Your task to perform on an android device: Look up the best rated gaming chairs on Target. Image 0: 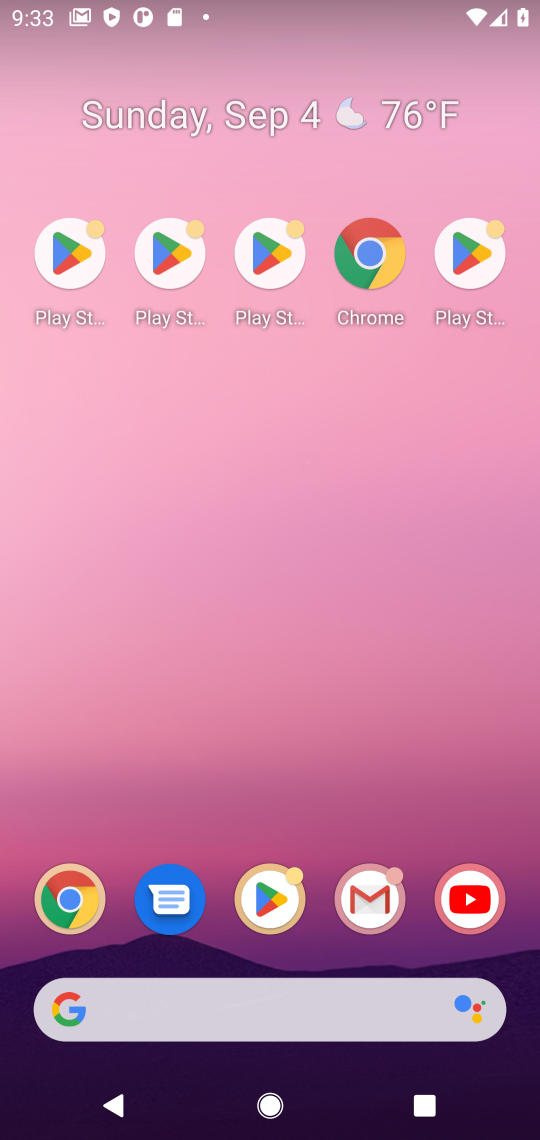
Step 0: press home button
Your task to perform on an android device: Look up the best rated gaming chairs on Target. Image 1: 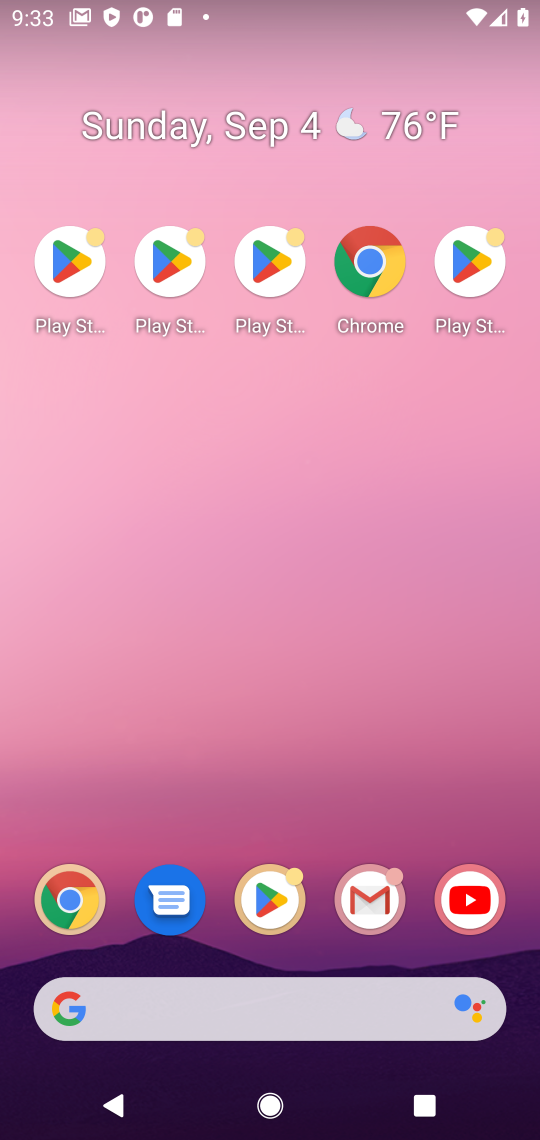
Step 1: drag from (237, 957) to (164, 108)
Your task to perform on an android device: Look up the best rated gaming chairs on Target. Image 2: 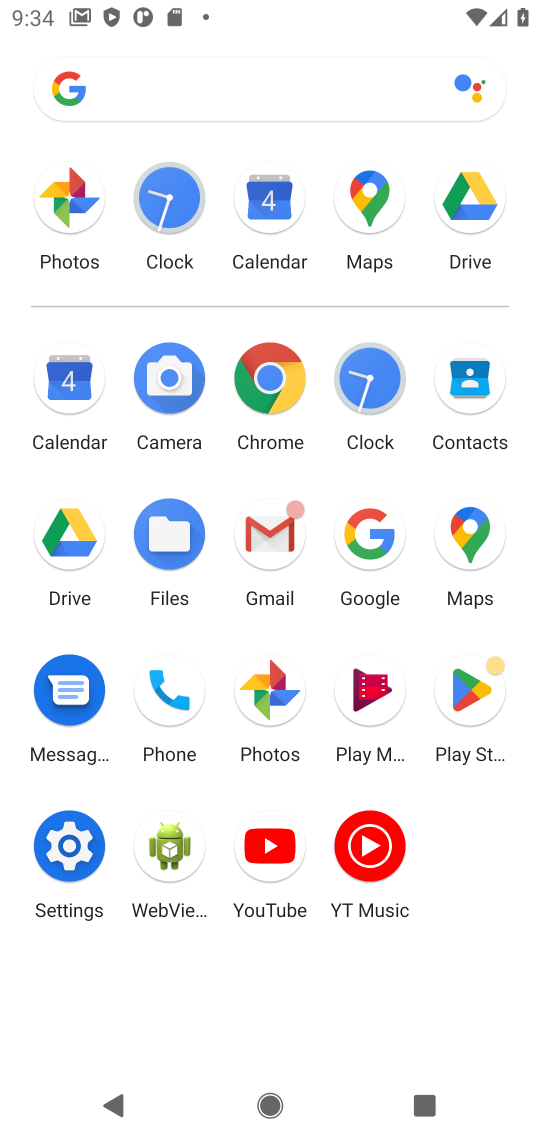
Step 2: click (255, 404)
Your task to perform on an android device: Look up the best rated gaming chairs on Target. Image 3: 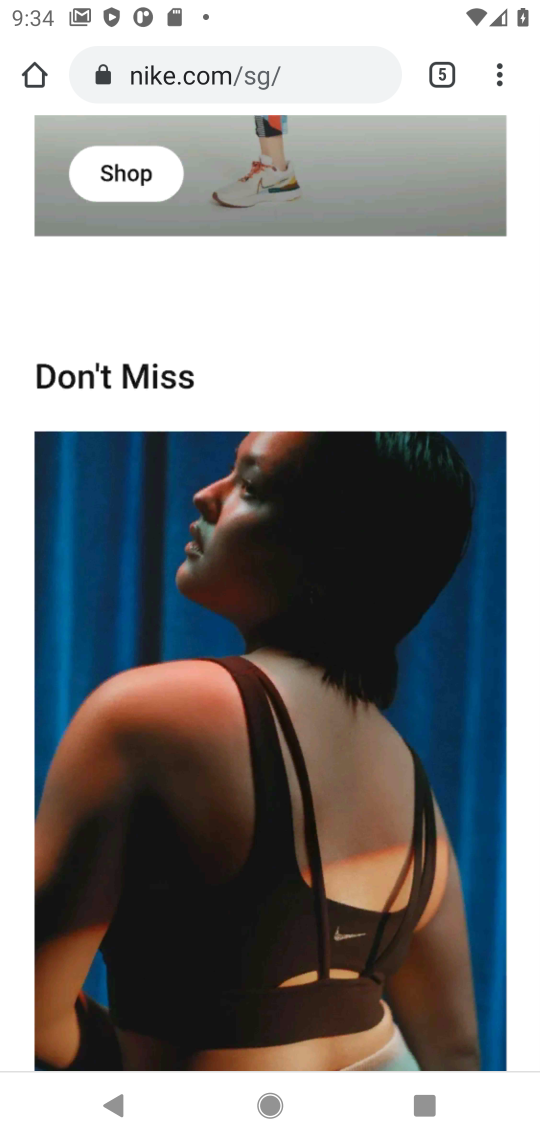
Step 3: drag from (350, 263) to (320, 856)
Your task to perform on an android device: Look up the best rated gaming chairs on Target. Image 4: 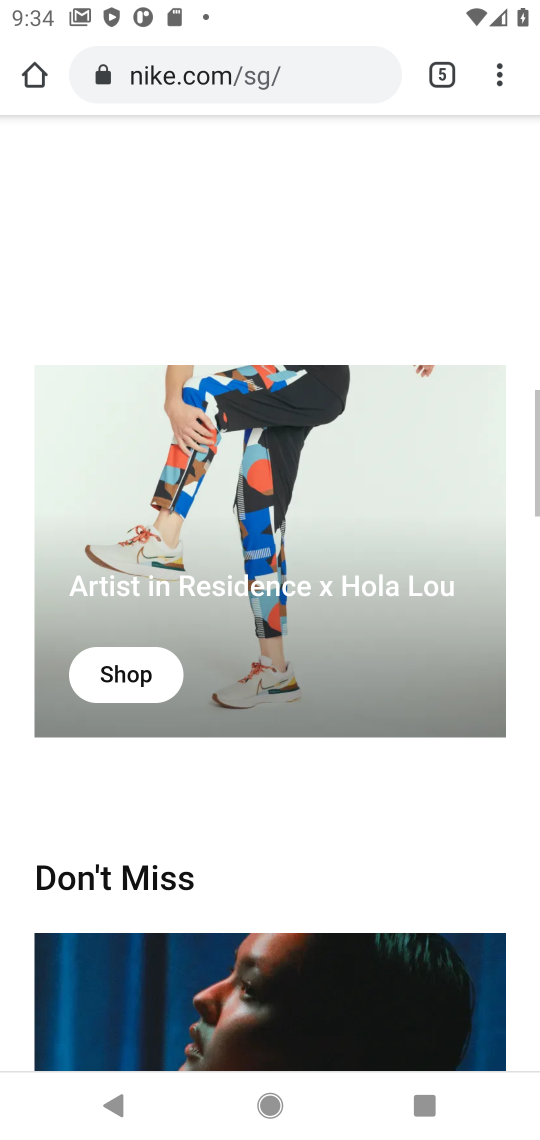
Step 4: click (306, 64)
Your task to perform on an android device: Look up the best rated gaming chairs on Target. Image 5: 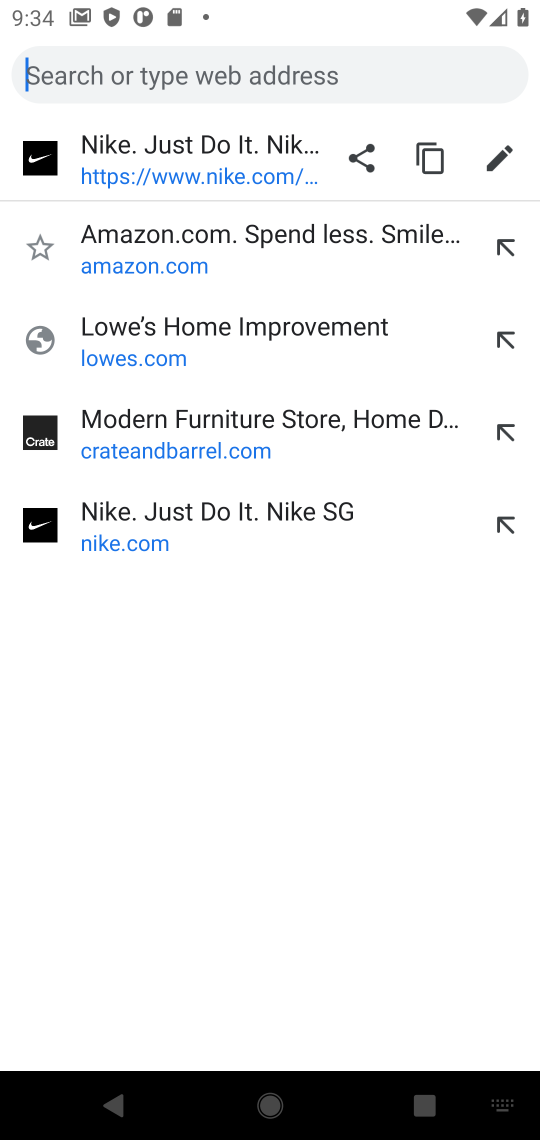
Step 5: type "Target"
Your task to perform on an android device: Look up the best rated gaming chairs on Target. Image 6: 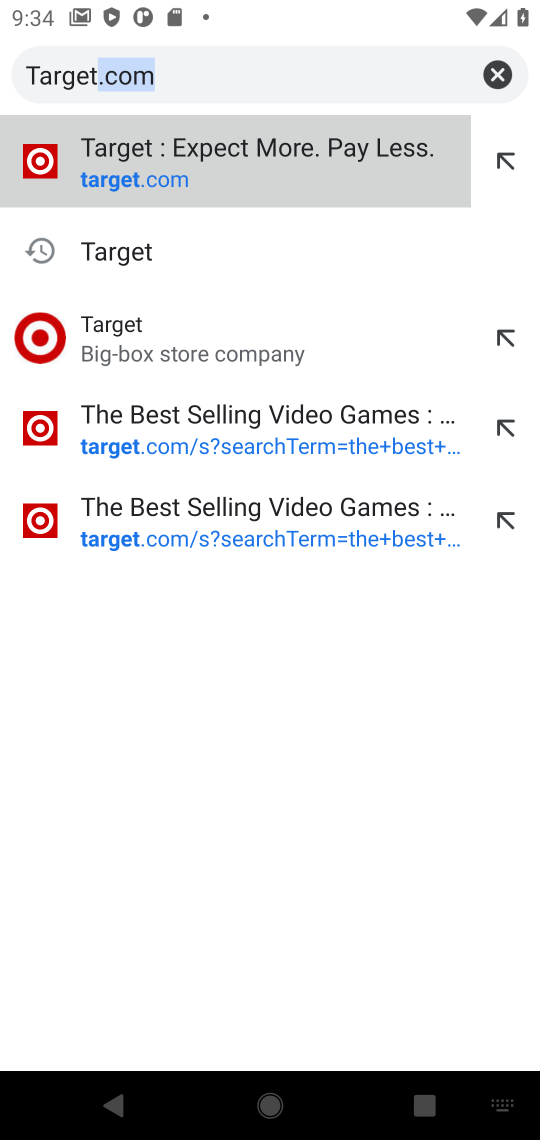
Step 6: type ""
Your task to perform on an android device: Look up the best rated gaming chairs on Target. Image 7: 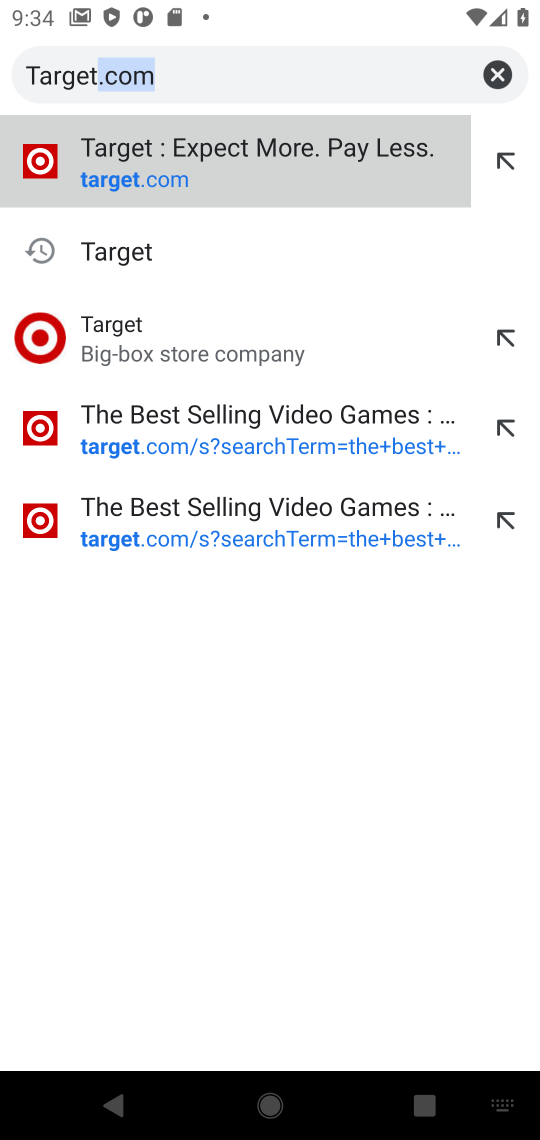
Step 7: click (112, 175)
Your task to perform on an android device: Look up the best rated gaming chairs on Target. Image 8: 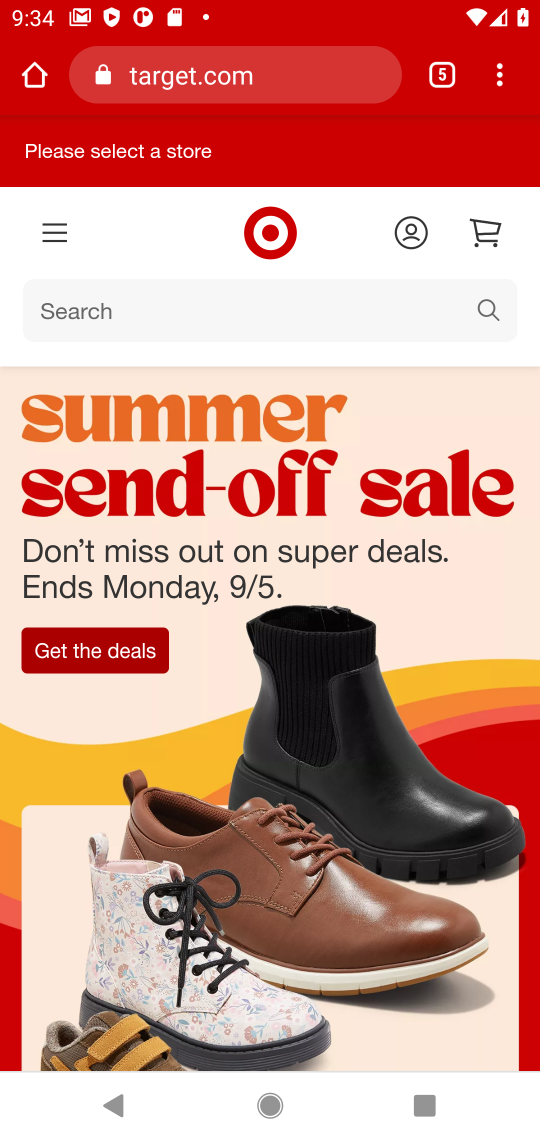
Step 8: click (341, 297)
Your task to perform on an android device: Look up the best rated gaming chairs on Target. Image 9: 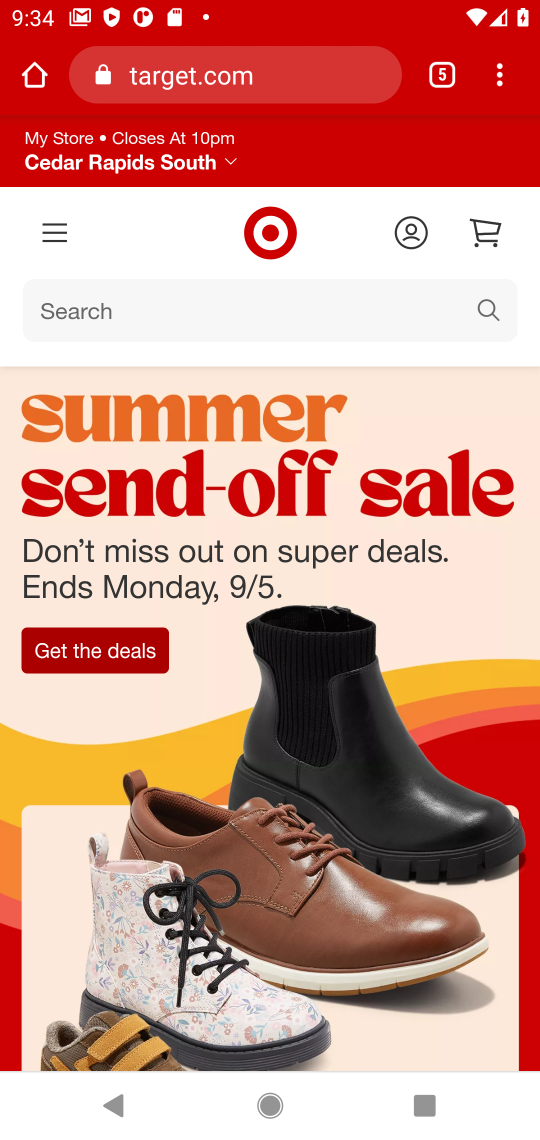
Step 9: click (129, 305)
Your task to perform on an android device: Look up the best rated gaming chairs on Target. Image 10: 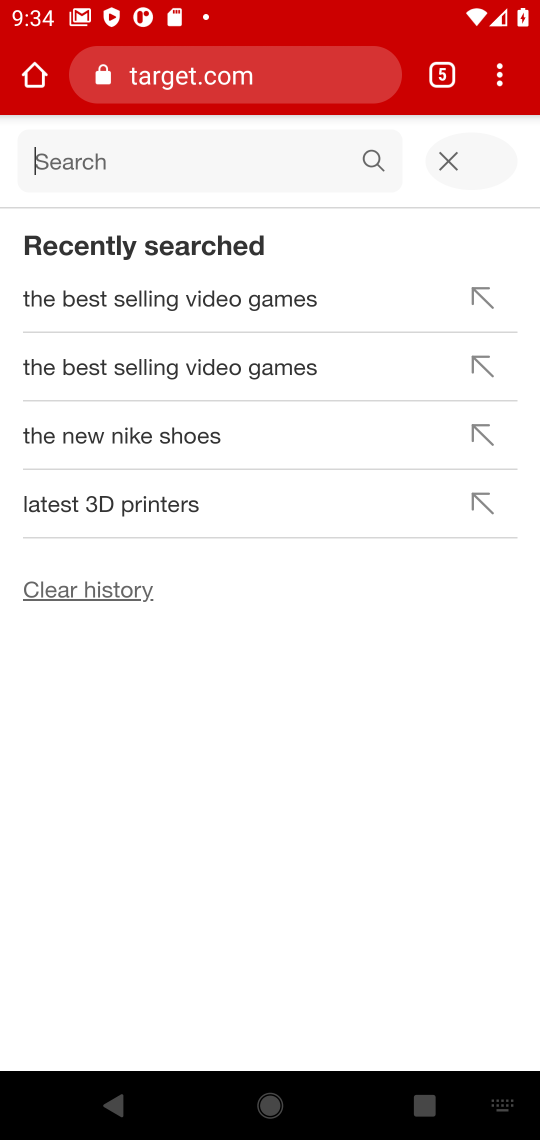
Step 10: type "the best rated gaming chair"
Your task to perform on an android device: Look up the best rated gaming chairs on Target. Image 11: 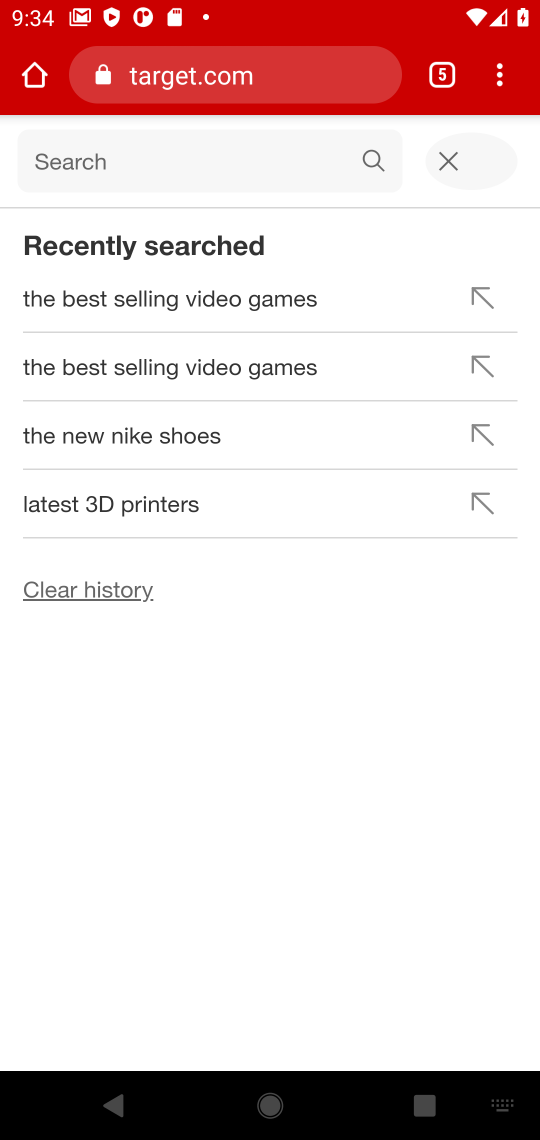
Step 11: type ""
Your task to perform on an android device: Look up the best rated gaming chairs on Target. Image 12: 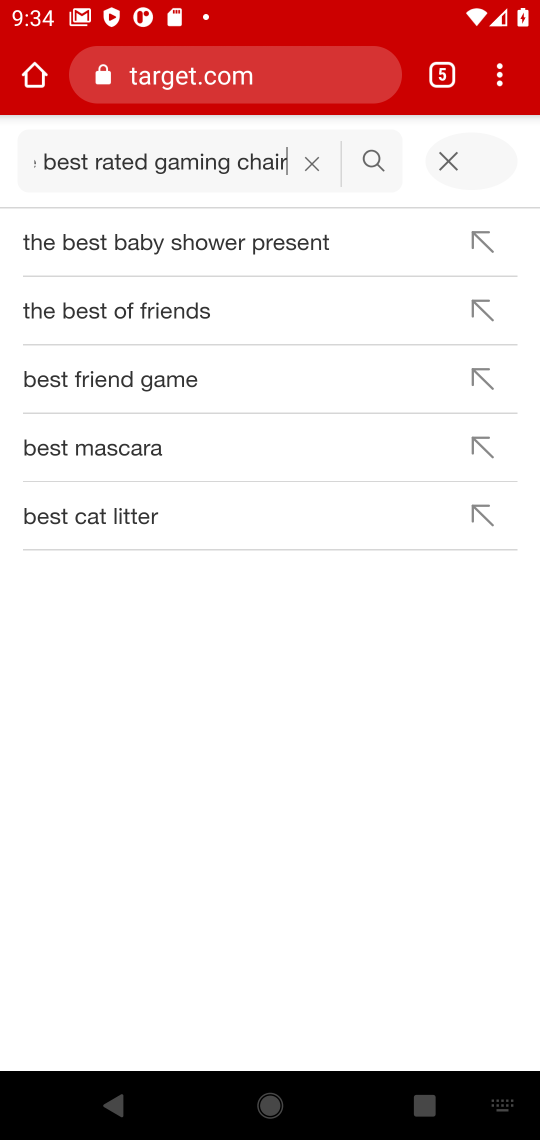
Step 12: click (144, 242)
Your task to perform on an android device: Look up the best rated gaming chairs on Target. Image 13: 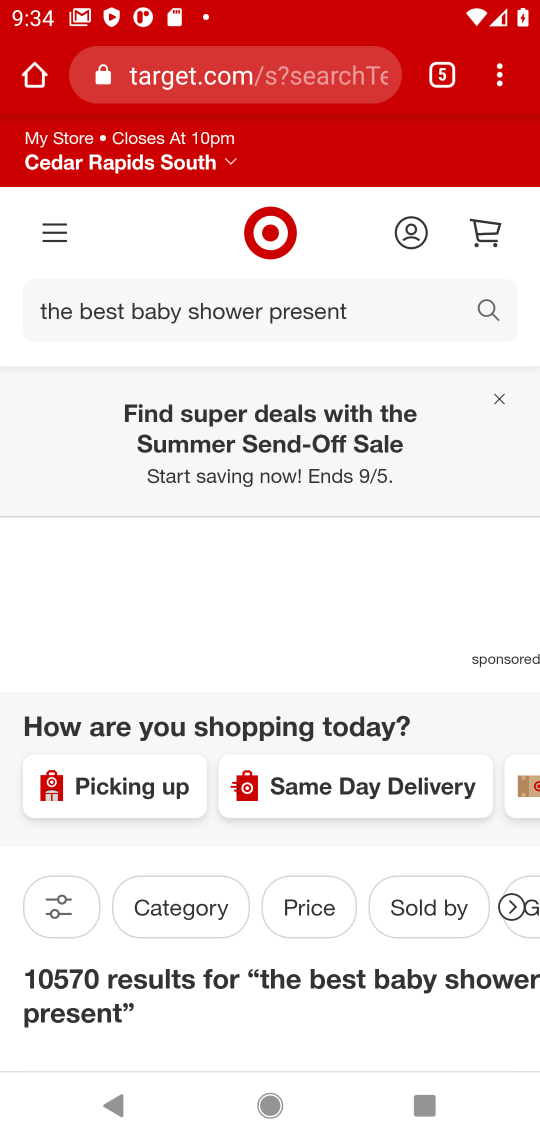
Step 13: drag from (285, 742) to (242, 223)
Your task to perform on an android device: Look up the best rated gaming chairs on Target. Image 14: 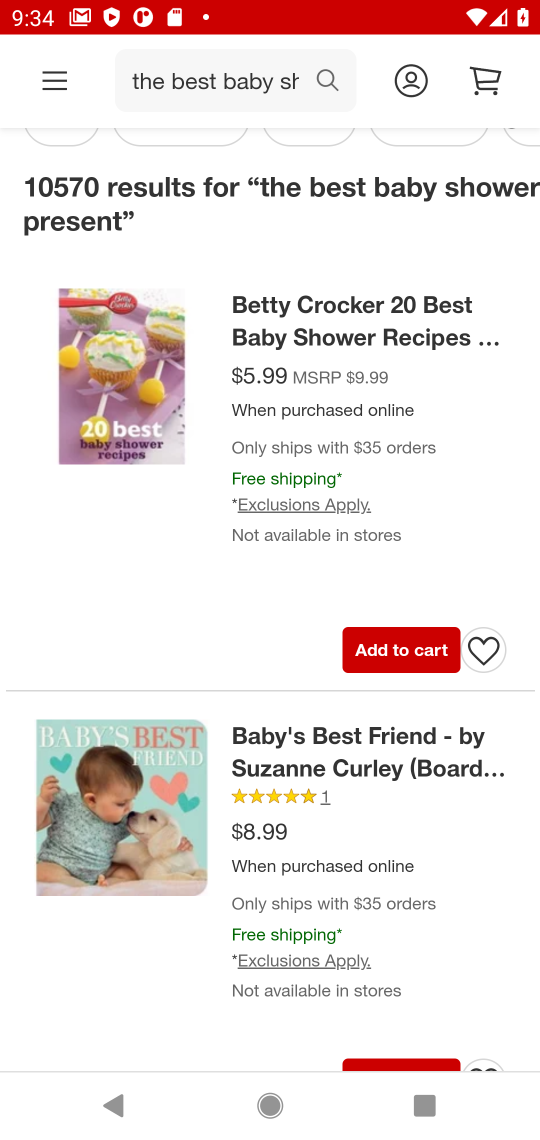
Step 14: press home button
Your task to perform on an android device: Look up the best rated gaming chairs on Target. Image 15: 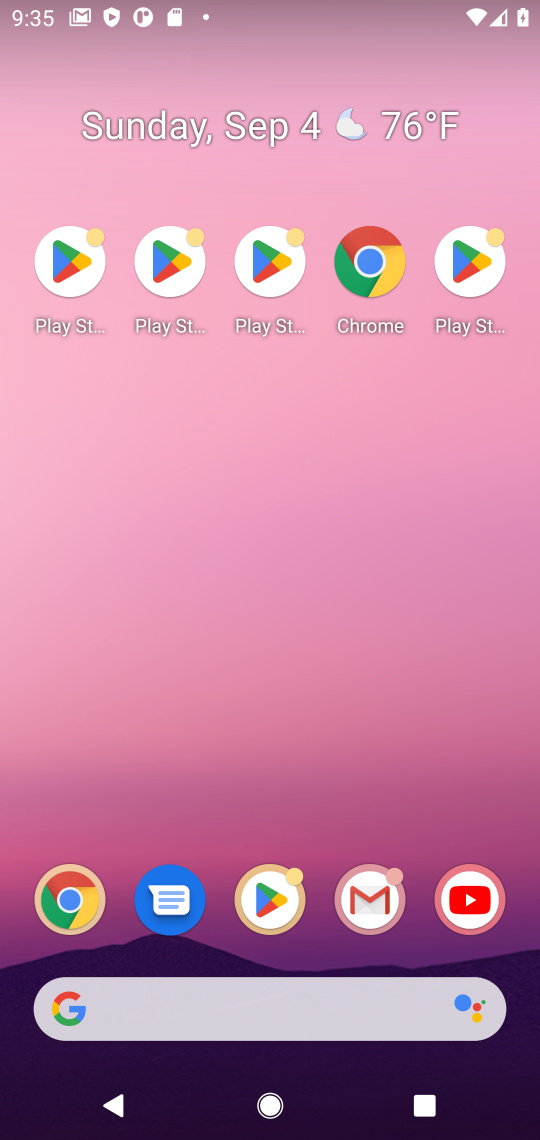
Step 15: drag from (347, 974) to (460, 163)
Your task to perform on an android device: Look up the best rated gaming chairs on Target. Image 16: 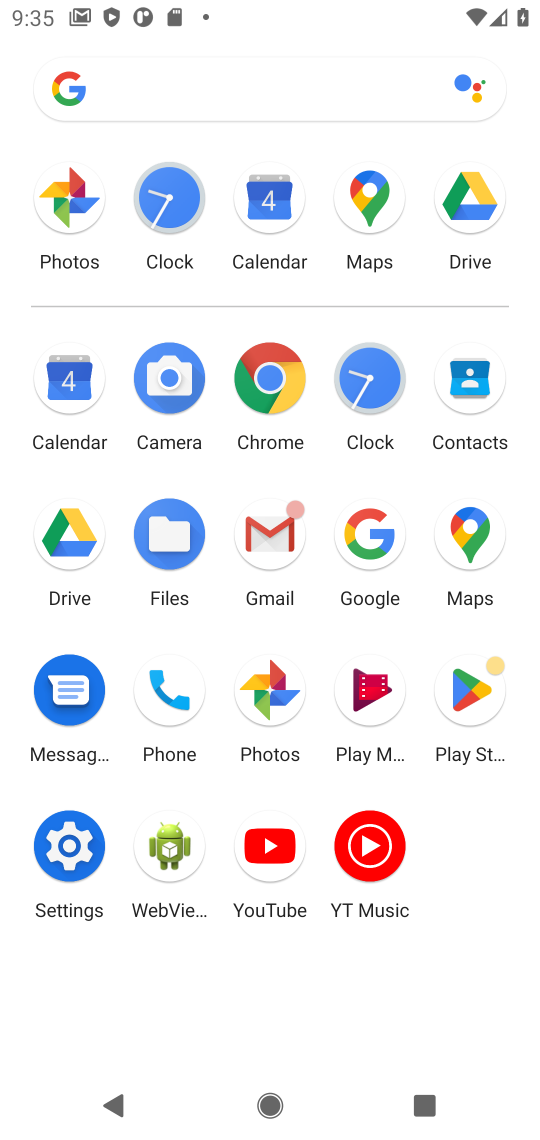
Step 16: click (241, 373)
Your task to perform on an android device: Look up the best rated gaming chairs on Target. Image 17: 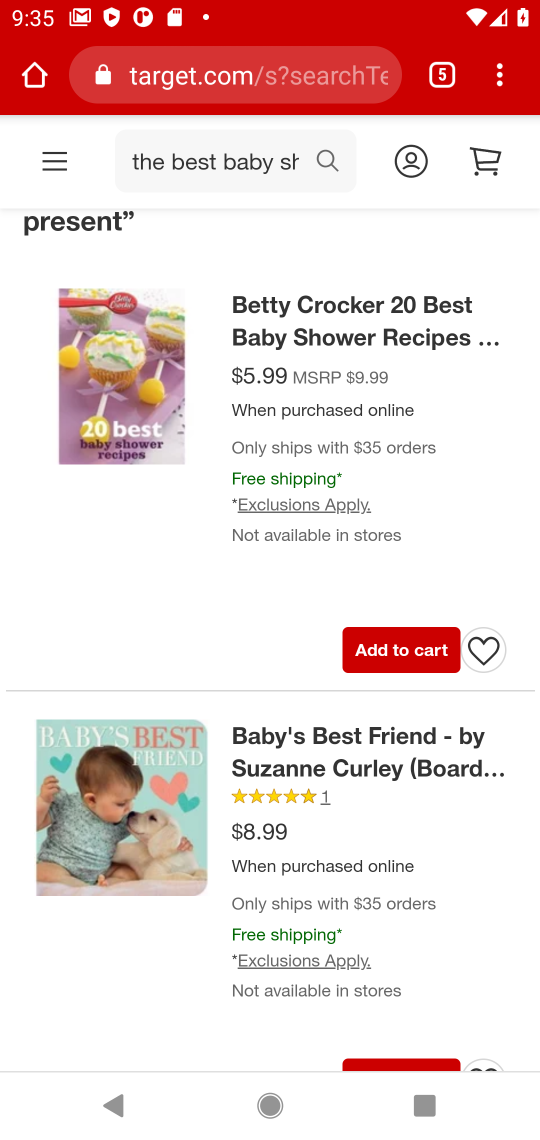
Step 17: click (27, 58)
Your task to perform on an android device: Look up the best rated gaming chairs on Target. Image 18: 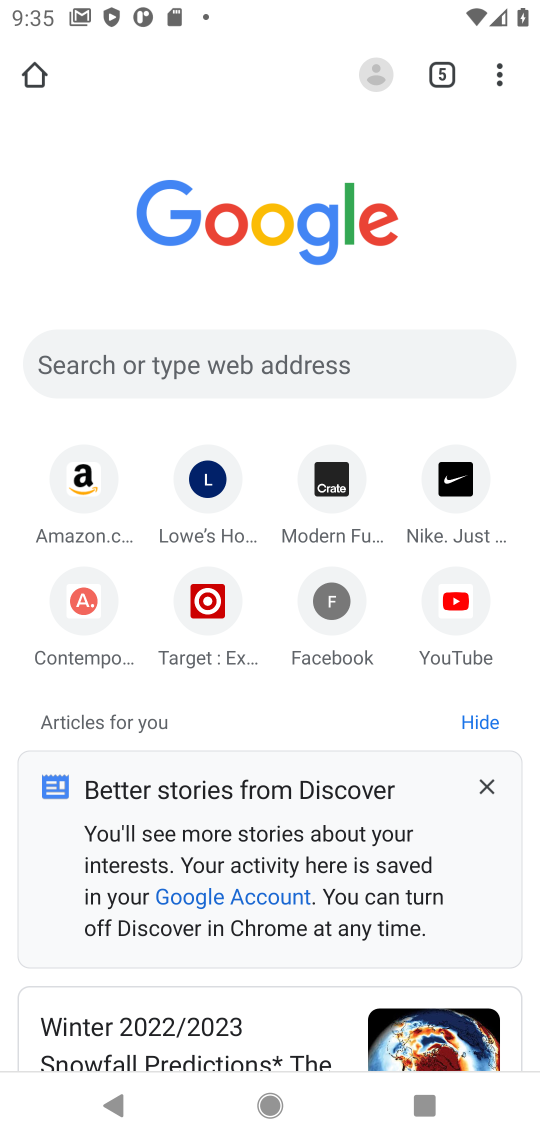
Step 18: click (216, 368)
Your task to perform on an android device: Look up the best rated gaming chairs on Target. Image 19: 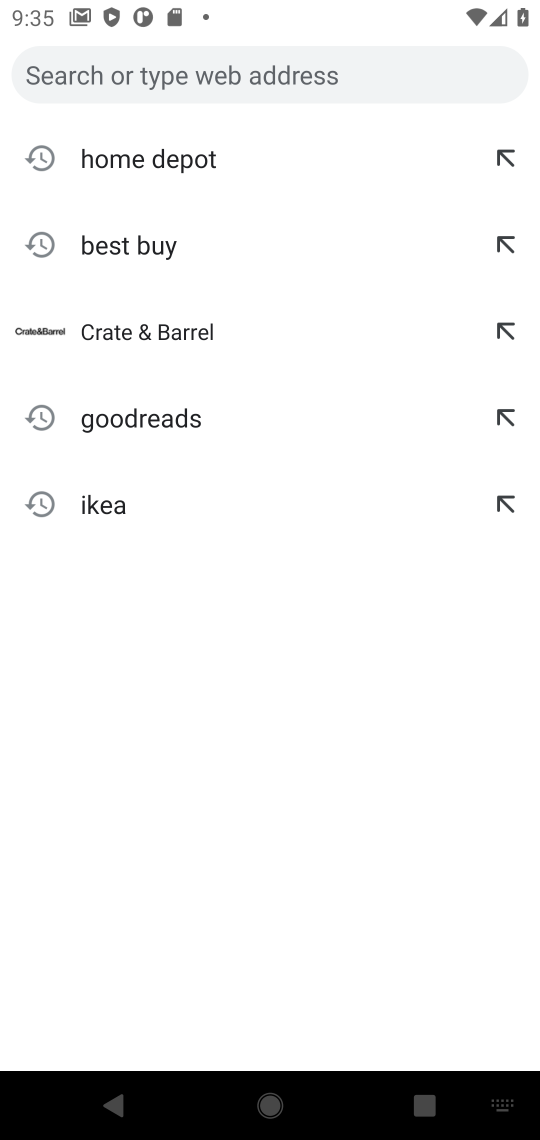
Step 19: type "Target"
Your task to perform on an android device: Look up the best rated gaming chairs on Target. Image 20: 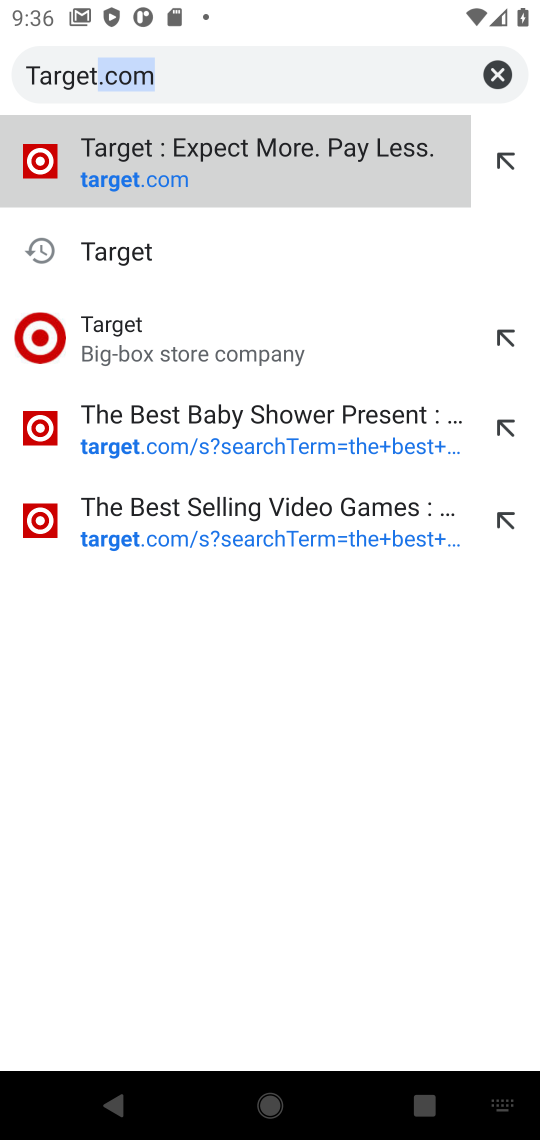
Step 20: click (121, 172)
Your task to perform on an android device: Look up the best rated gaming chairs on Target. Image 21: 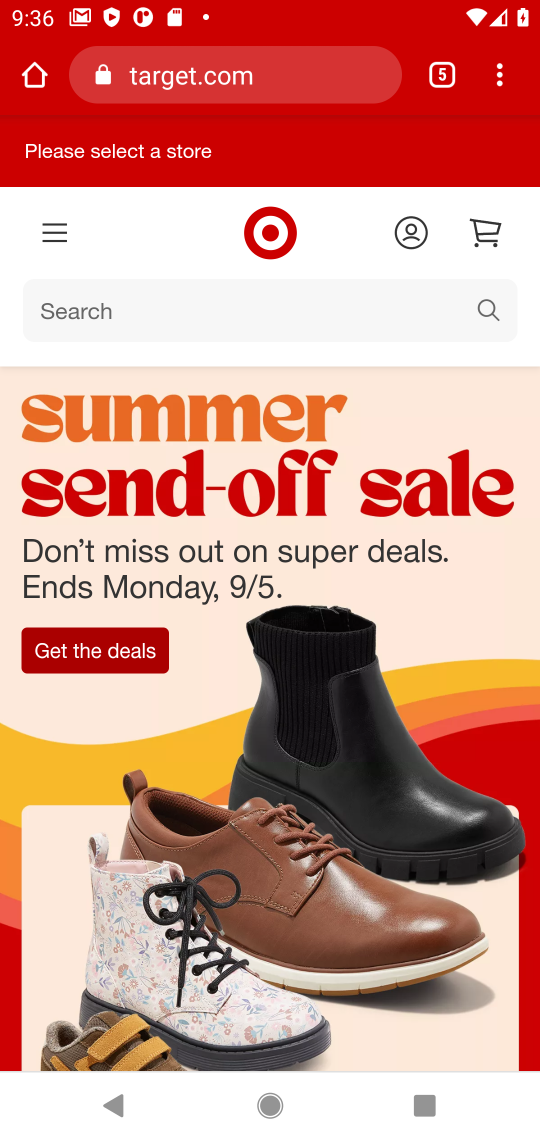
Step 21: click (161, 313)
Your task to perform on an android device: Look up the best rated gaming chairs on Target. Image 22: 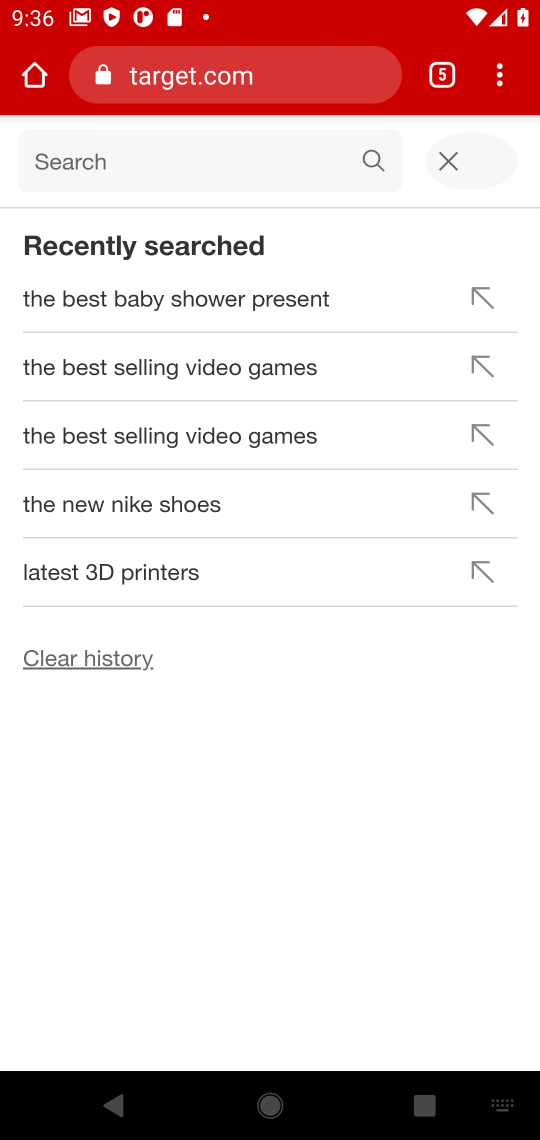
Step 22: type "the best rated gaming chairs"
Your task to perform on an android device: Look up the best rated gaming chairs on Target. Image 23: 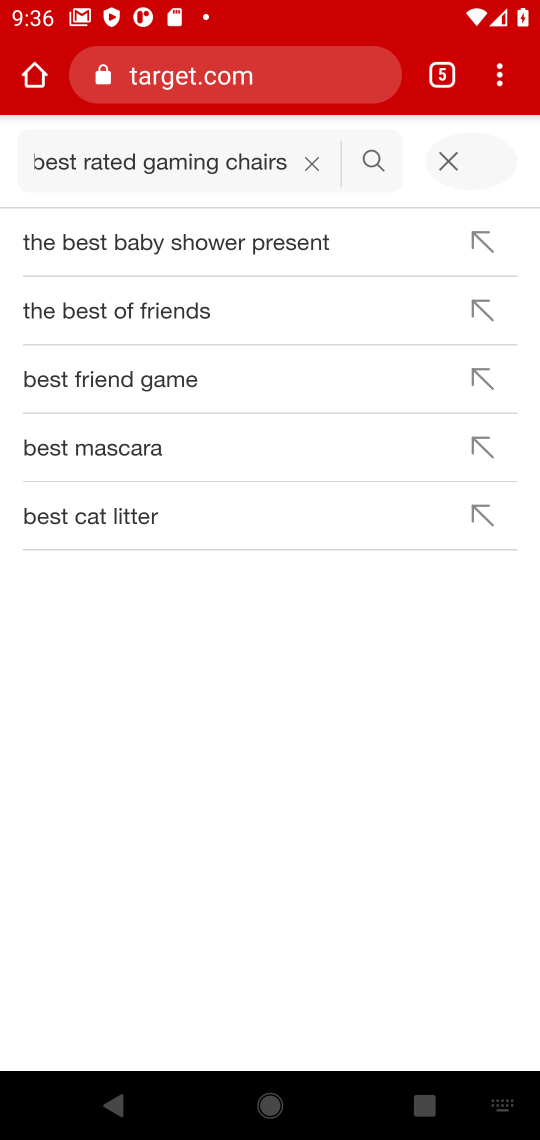
Step 23: click (229, 236)
Your task to perform on an android device: Look up the best rated gaming chairs on Target. Image 24: 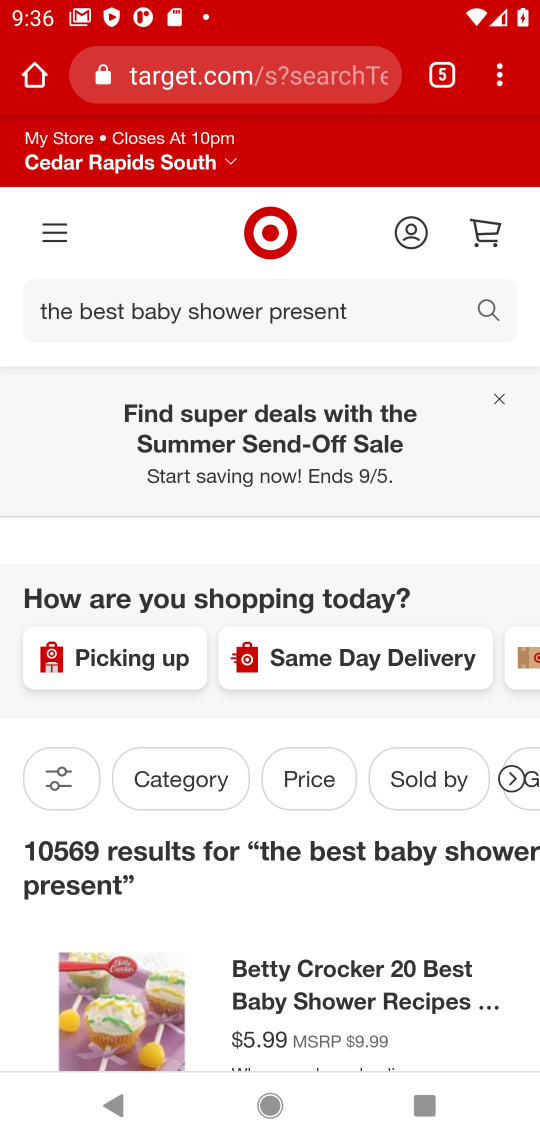
Step 24: task complete